Your task to perform on an android device: Turn off the flashlight Image 0: 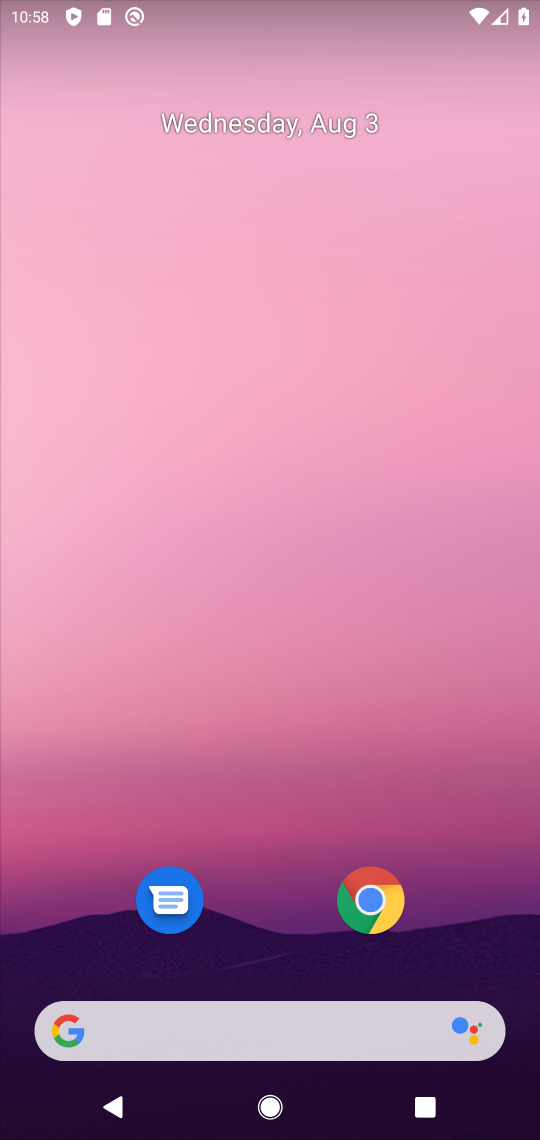
Step 0: press home button
Your task to perform on an android device: Turn off the flashlight Image 1: 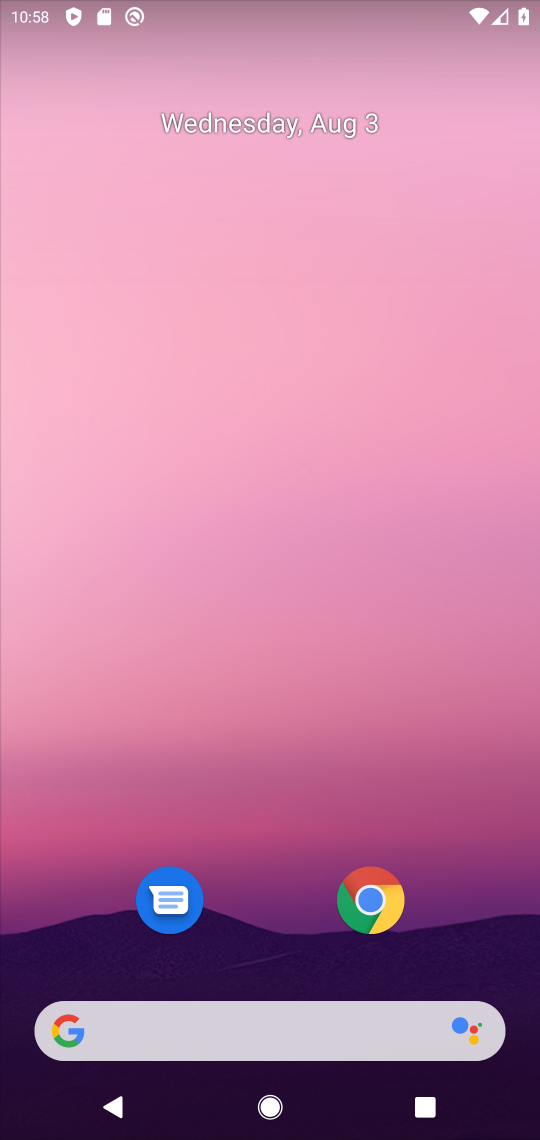
Step 1: task complete